Your task to perform on an android device: delete a single message in the gmail app Image 0: 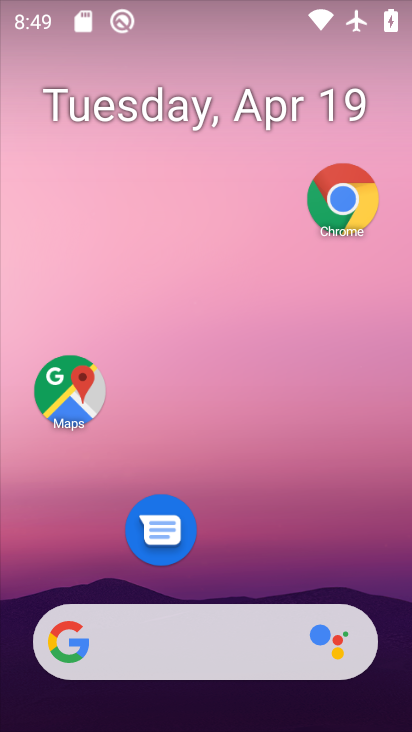
Step 0: click (229, 26)
Your task to perform on an android device: delete a single message in the gmail app Image 1: 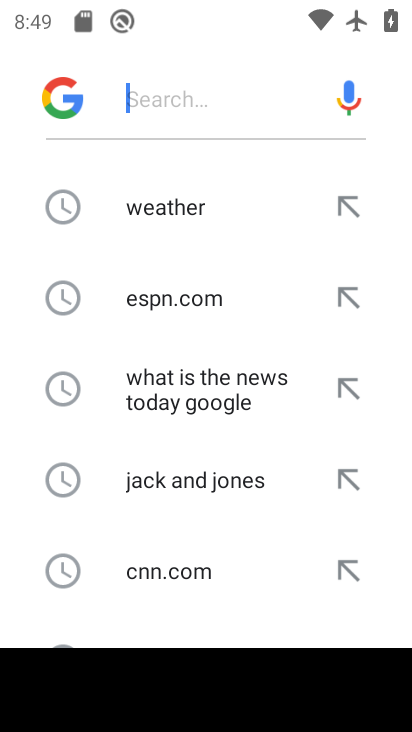
Step 1: press home button
Your task to perform on an android device: delete a single message in the gmail app Image 2: 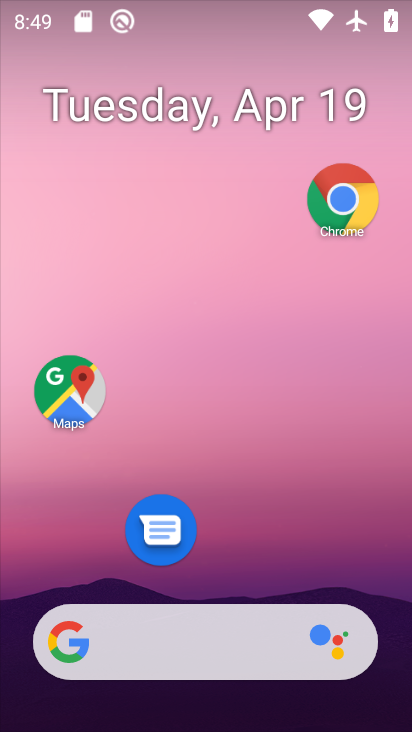
Step 2: drag from (219, 568) to (241, 73)
Your task to perform on an android device: delete a single message in the gmail app Image 3: 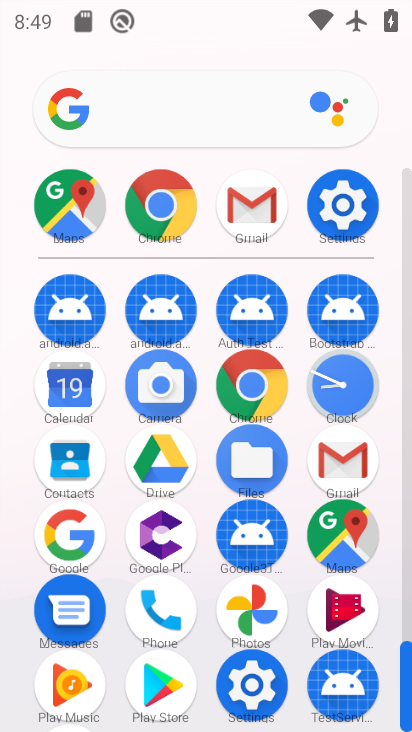
Step 3: click (345, 455)
Your task to perform on an android device: delete a single message in the gmail app Image 4: 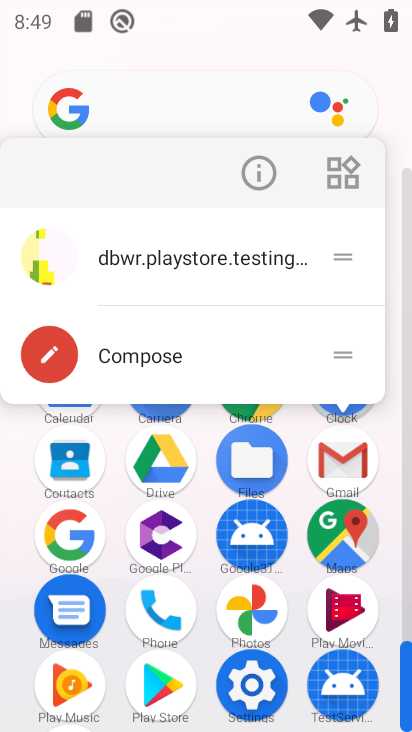
Step 4: click (266, 164)
Your task to perform on an android device: delete a single message in the gmail app Image 5: 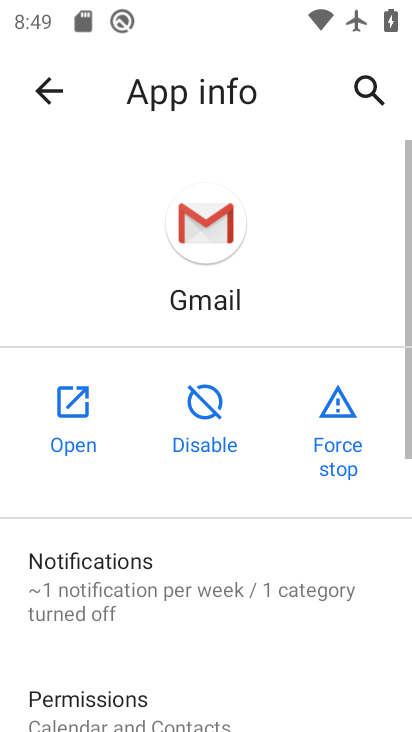
Step 5: click (71, 410)
Your task to perform on an android device: delete a single message in the gmail app Image 6: 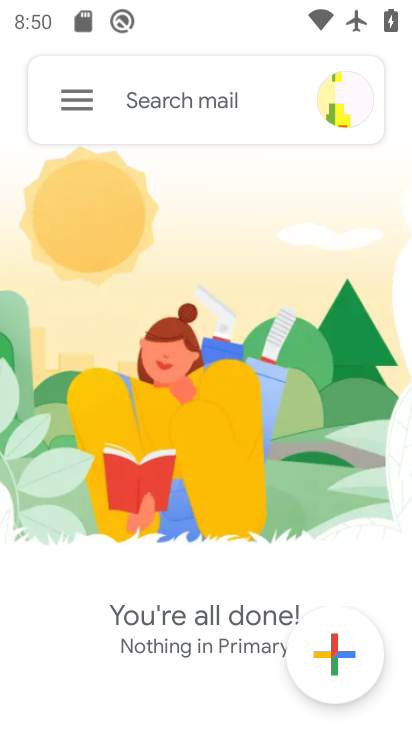
Step 6: click (78, 102)
Your task to perform on an android device: delete a single message in the gmail app Image 7: 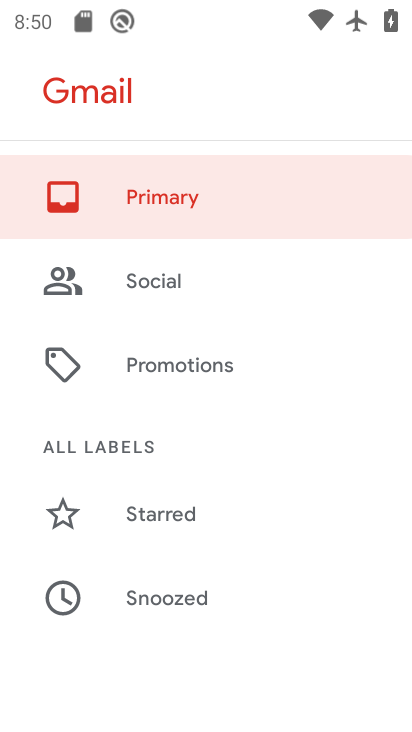
Step 7: drag from (159, 562) to (261, 121)
Your task to perform on an android device: delete a single message in the gmail app Image 8: 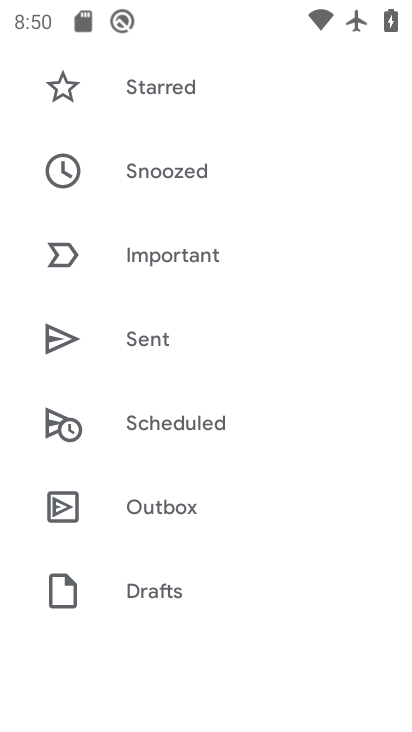
Step 8: drag from (193, 546) to (304, 80)
Your task to perform on an android device: delete a single message in the gmail app Image 9: 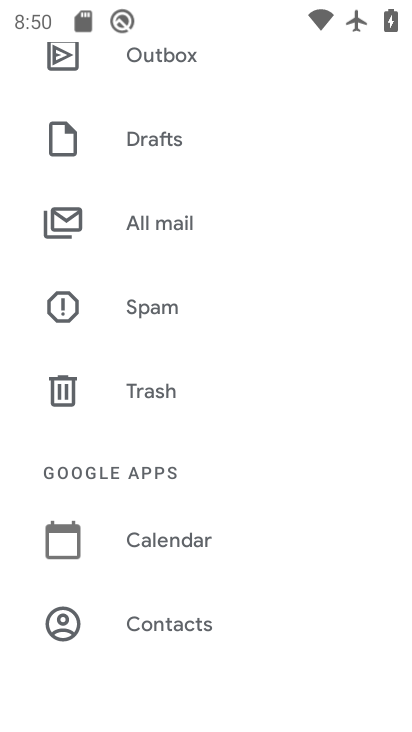
Step 9: drag from (183, 561) to (308, 56)
Your task to perform on an android device: delete a single message in the gmail app Image 10: 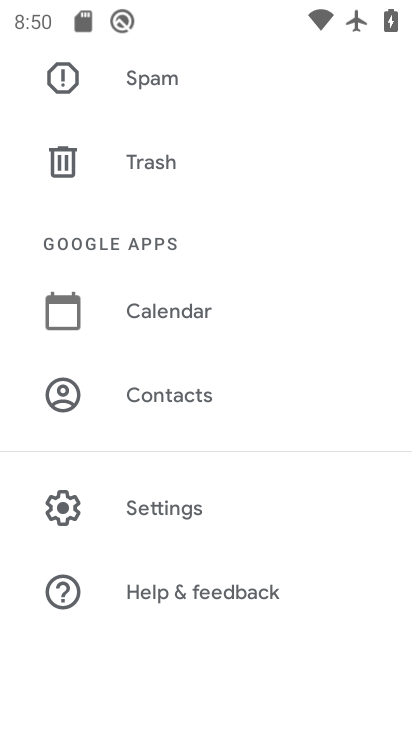
Step 10: click (174, 512)
Your task to perform on an android device: delete a single message in the gmail app Image 11: 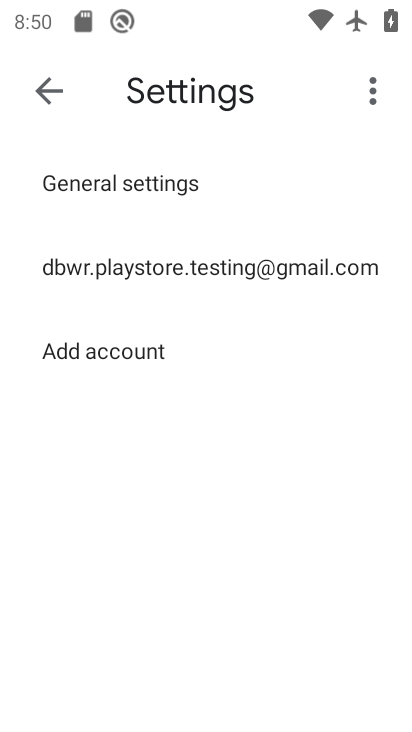
Step 11: click (49, 88)
Your task to perform on an android device: delete a single message in the gmail app Image 12: 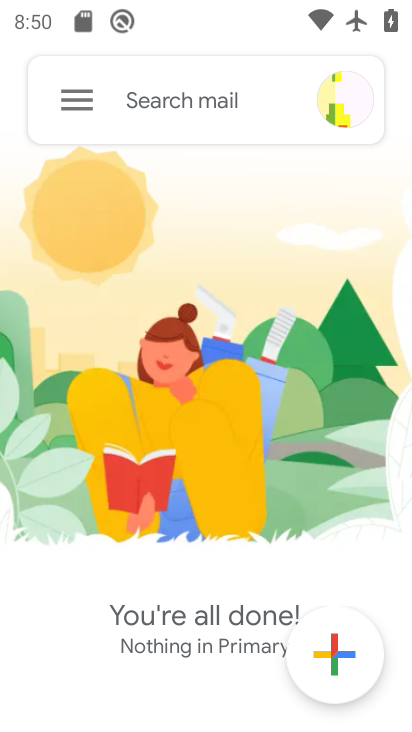
Step 12: task complete